Your task to perform on an android device: Open Google Maps and go to "Timeline" Image 0: 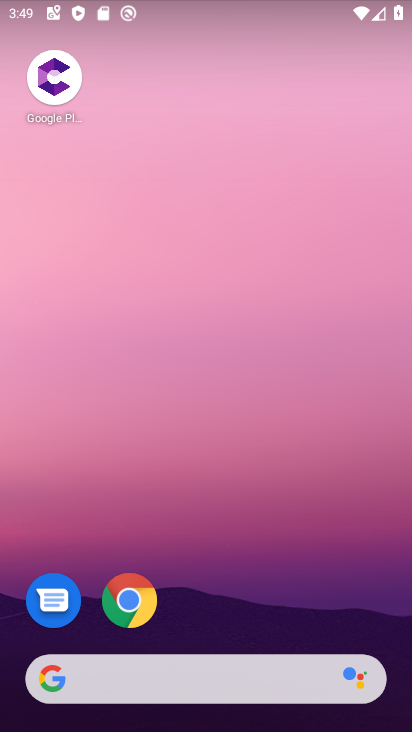
Step 0: drag from (217, 611) to (278, 119)
Your task to perform on an android device: Open Google Maps and go to "Timeline" Image 1: 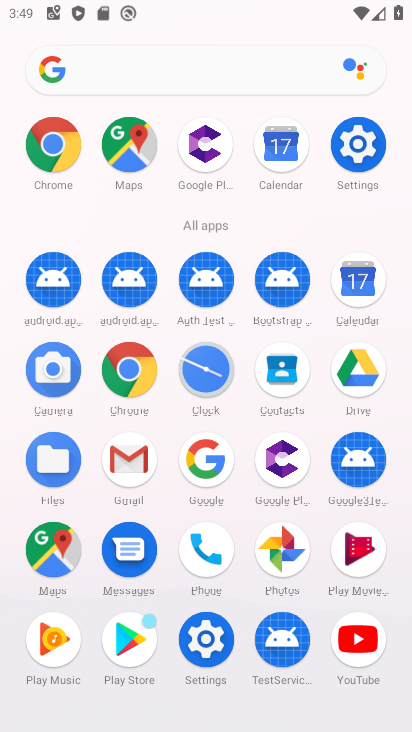
Step 1: click (73, 554)
Your task to perform on an android device: Open Google Maps and go to "Timeline" Image 2: 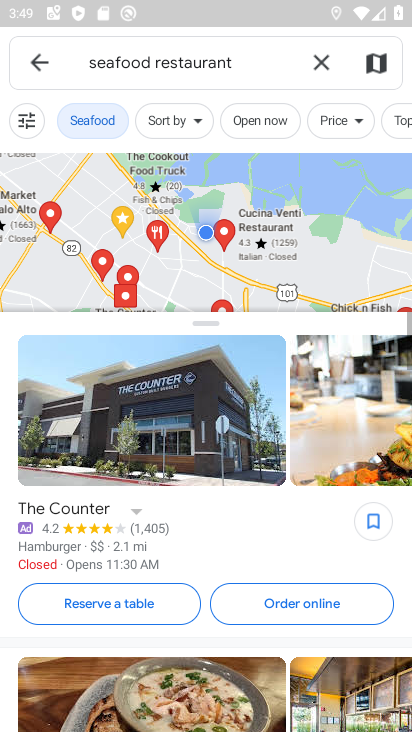
Step 2: click (35, 60)
Your task to perform on an android device: Open Google Maps and go to "Timeline" Image 3: 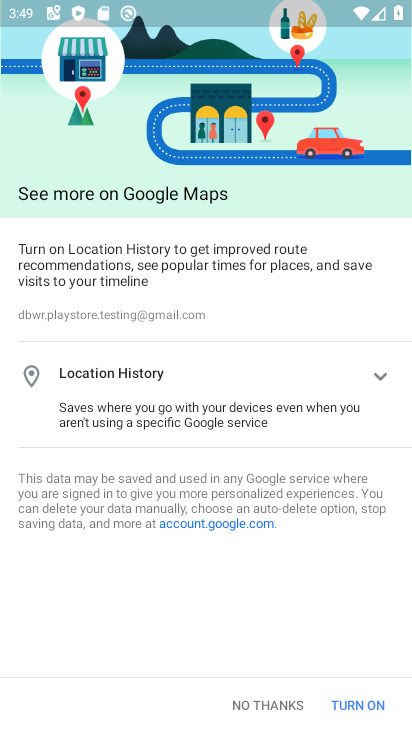
Step 3: click (265, 701)
Your task to perform on an android device: Open Google Maps and go to "Timeline" Image 4: 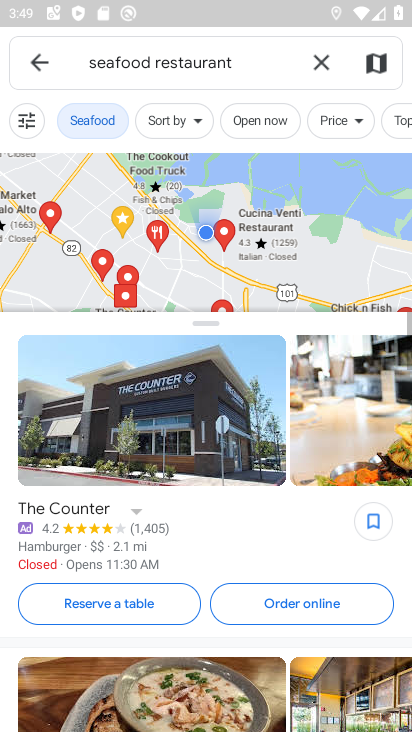
Step 4: click (43, 54)
Your task to perform on an android device: Open Google Maps and go to "Timeline" Image 5: 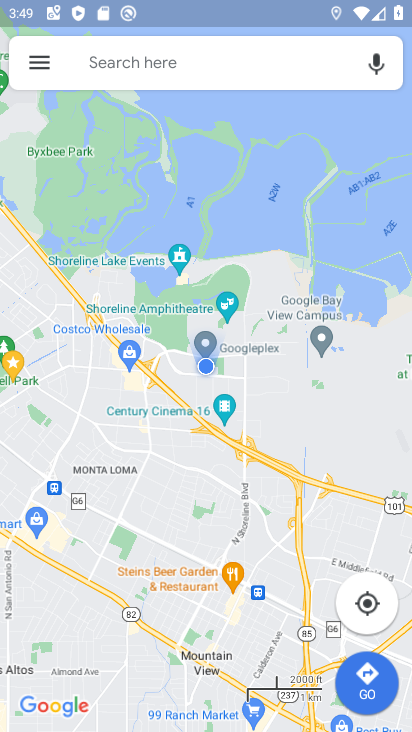
Step 5: click (41, 59)
Your task to perform on an android device: Open Google Maps and go to "Timeline" Image 6: 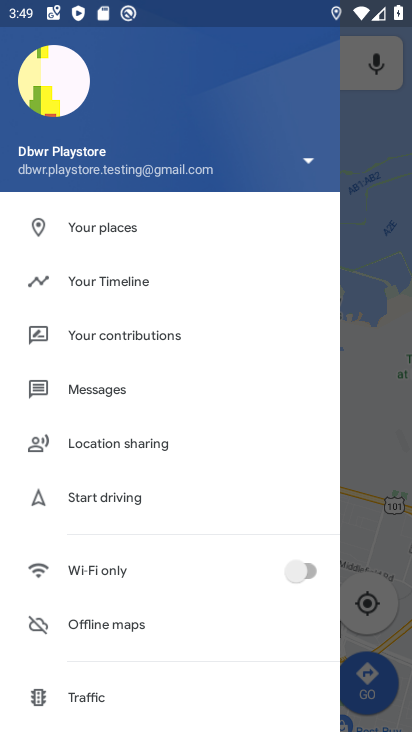
Step 6: click (100, 291)
Your task to perform on an android device: Open Google Maps and go to "Timeline" Image 7: 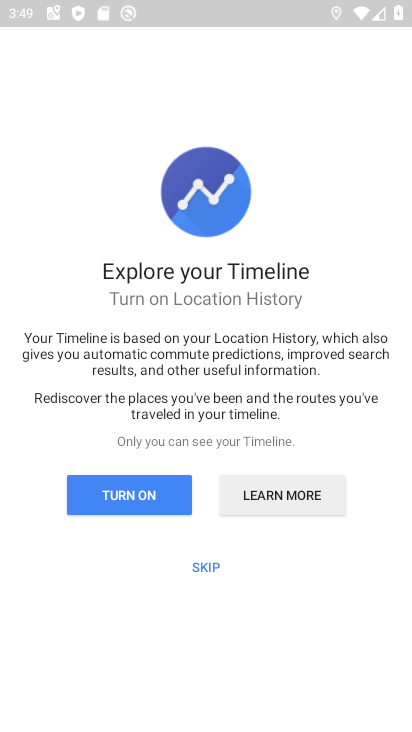
Step 7: click (216, 557)
Your task to perform on an android device: Open Google Maps and go to "Timeline" Image 8: 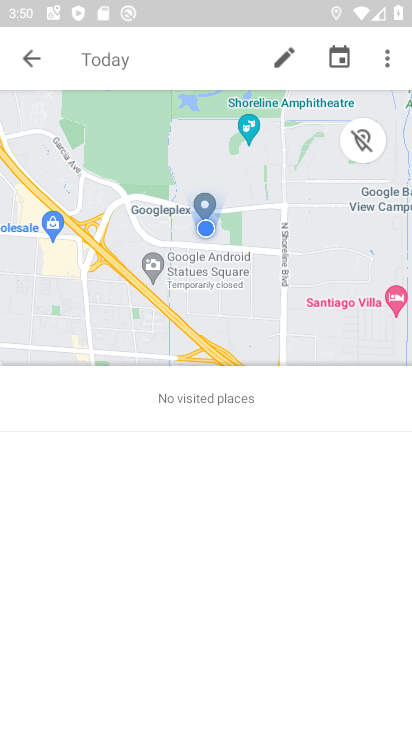
Step 8: task complete